Your task to perform on an android device: change the clock display to digital Image 0: 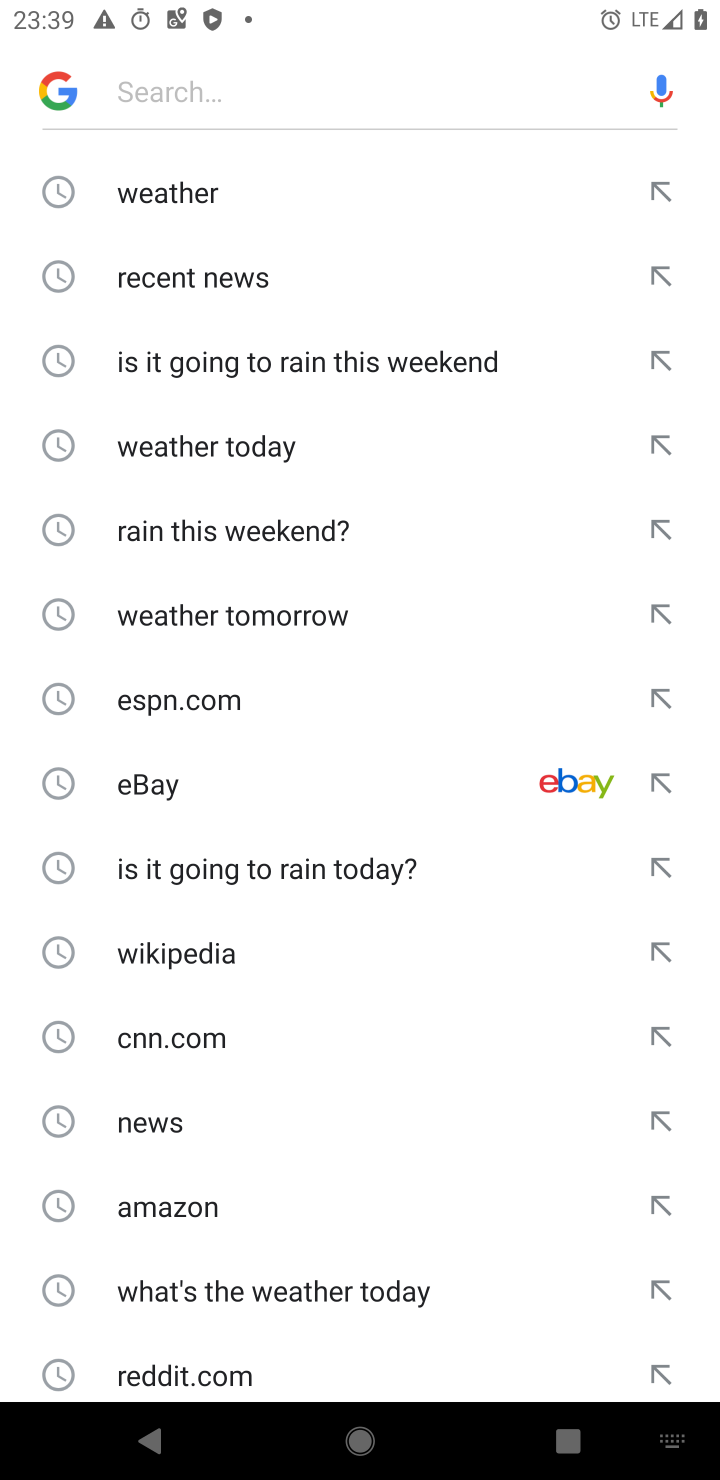
Step 0: press home button
Your task to perform on an android device: change the clock display to digital Image 1: 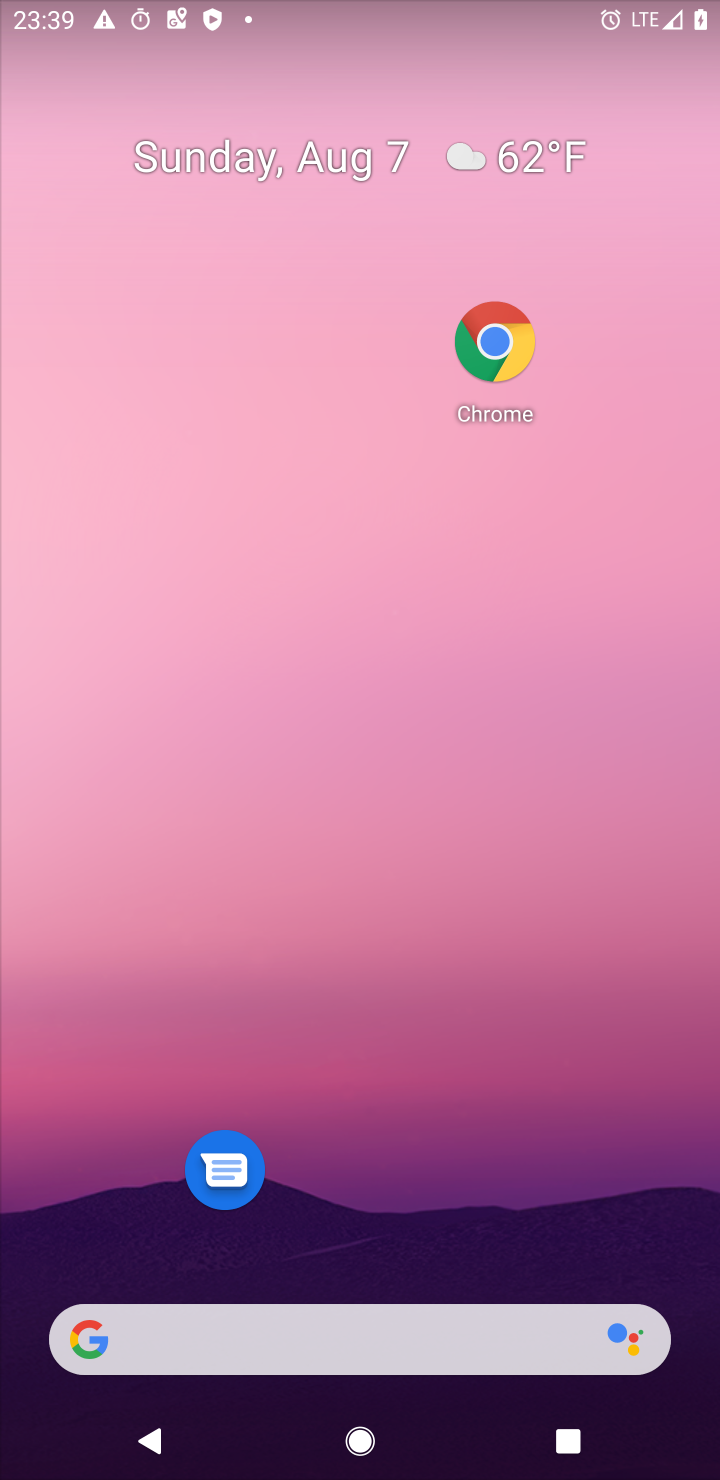
Step 1: drag from (452, 1346) to (398, 207)
Your task to perform on an android device: change the clock display to digital Image 2: 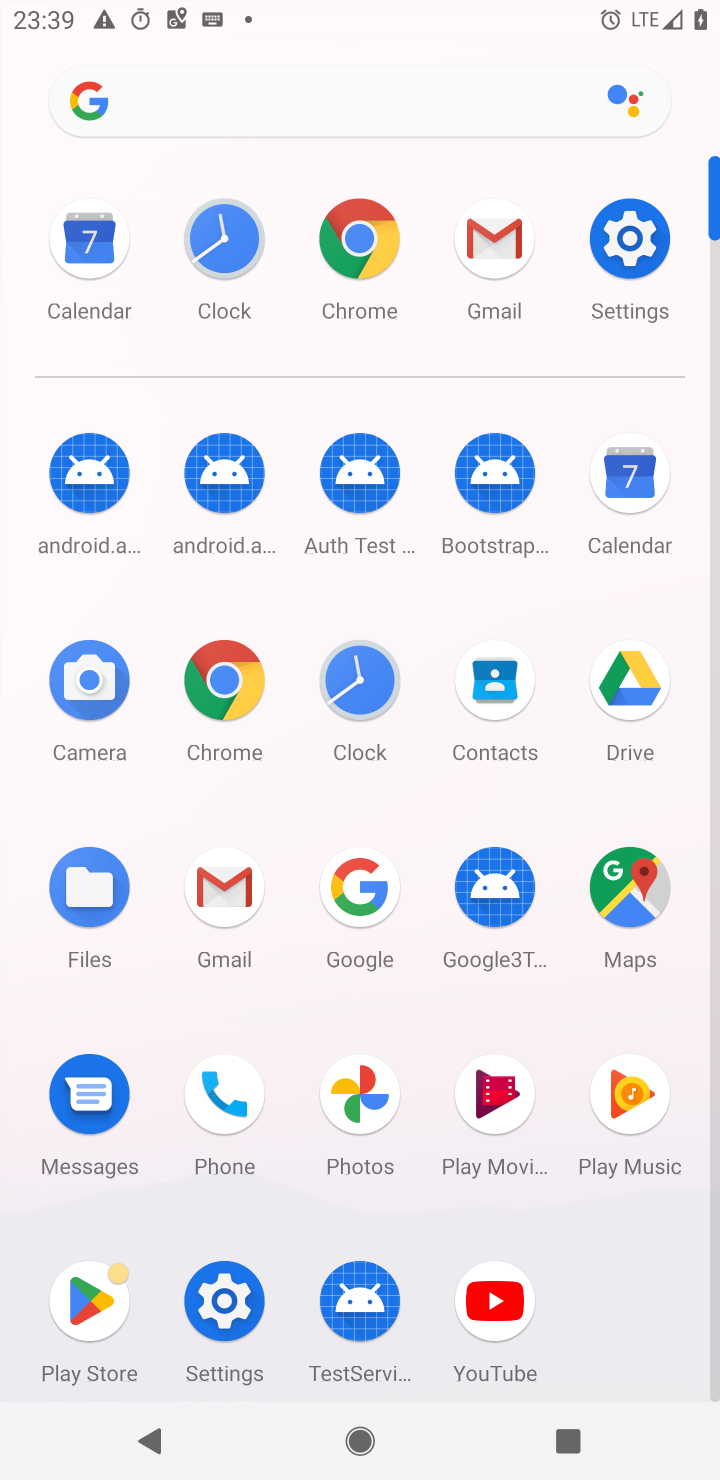
Step 2: click (356, 664)
Your task to perform on an android device: change the clock display to digital Image 3: 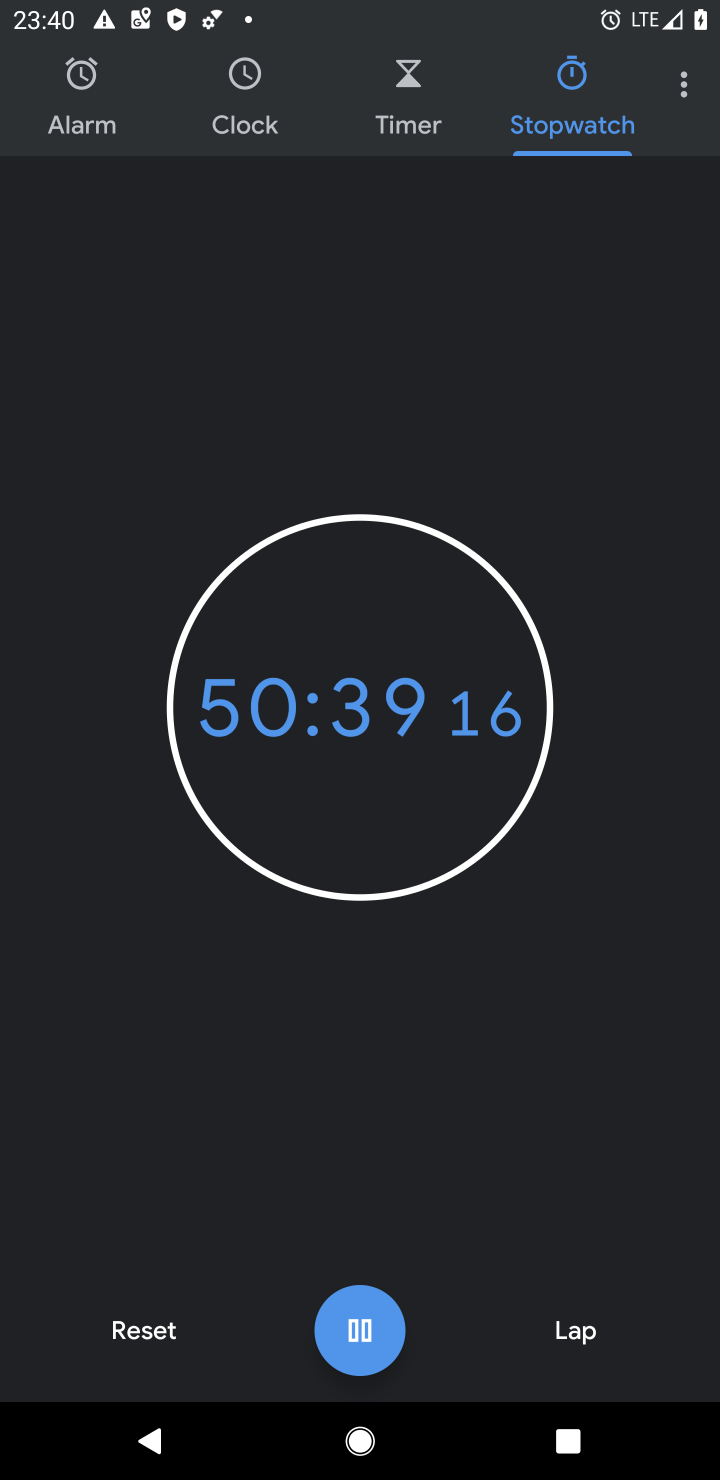
Step 3: click (680, 76)
Your task to perform on an android device: change the clock display to digital Image 4: 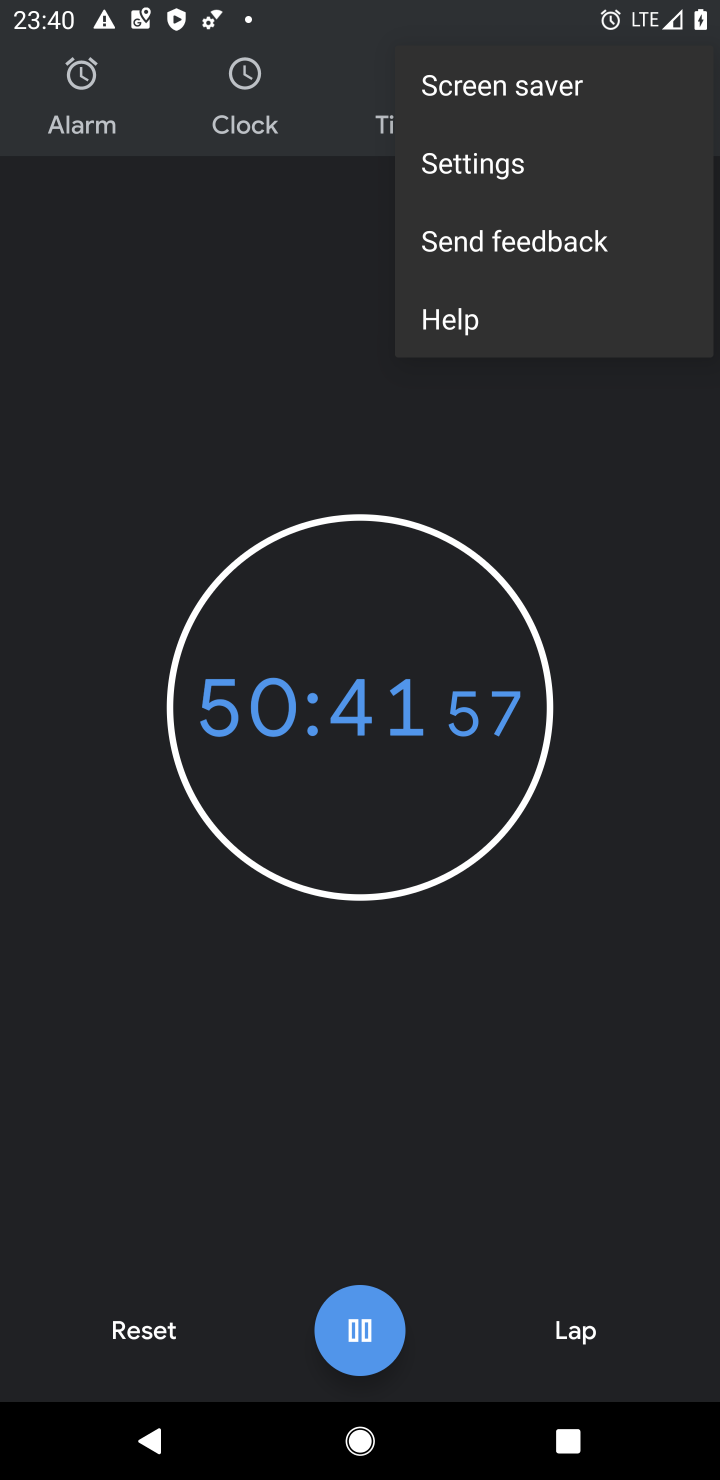
Step 4: click (522, 157)
Your task to perform on an android device: change the clock display to digital Image 5: 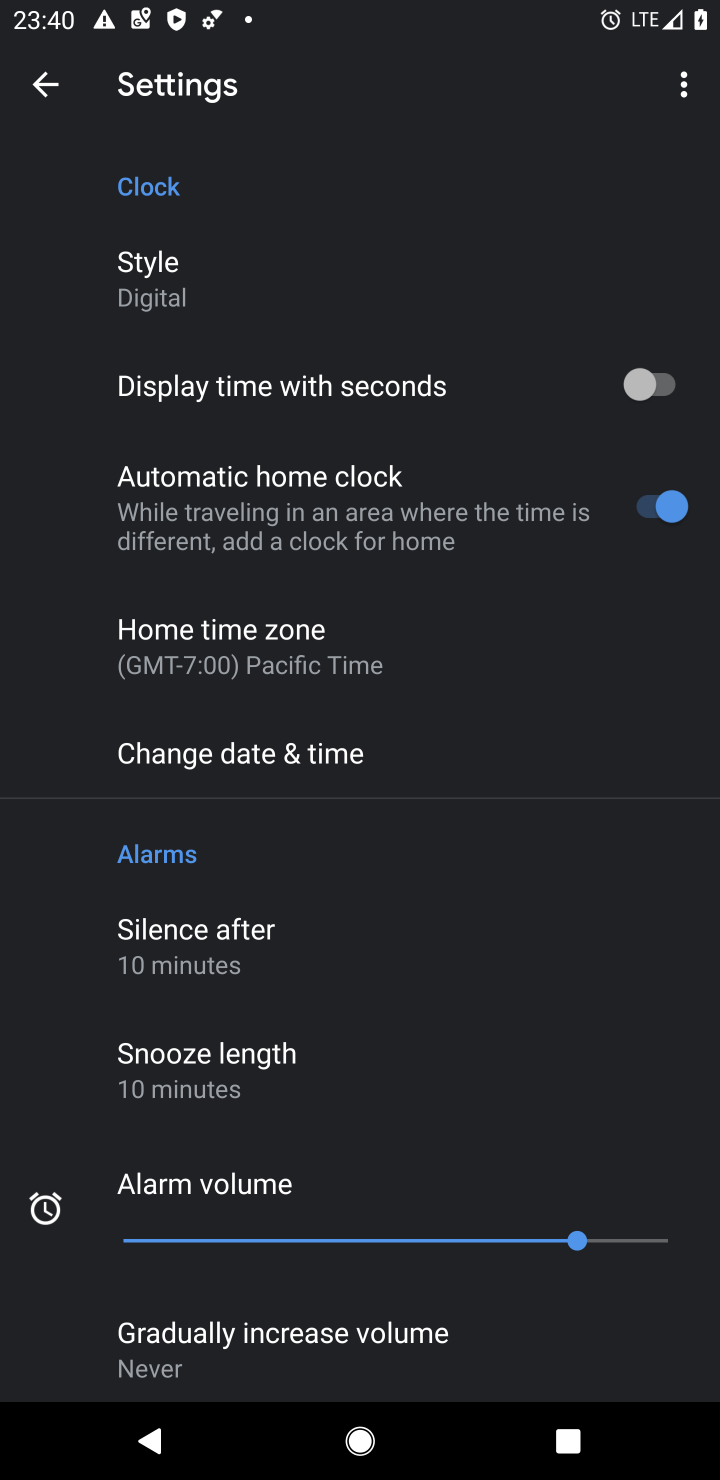
Step 5: task complete